Your task to perform on an android device: Search for seafood restaurants on Google Maps Image 0: 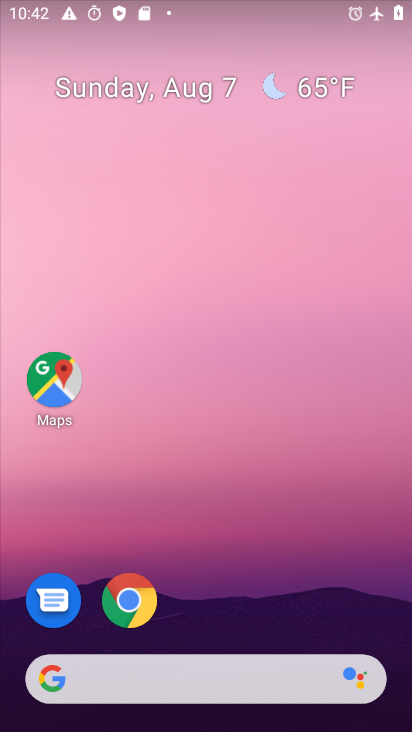
Step 0: drag from (243, 637) to (247, 190)
Your task to perform on an android device: Search for seafood restaurants on Google Maps Image 1: 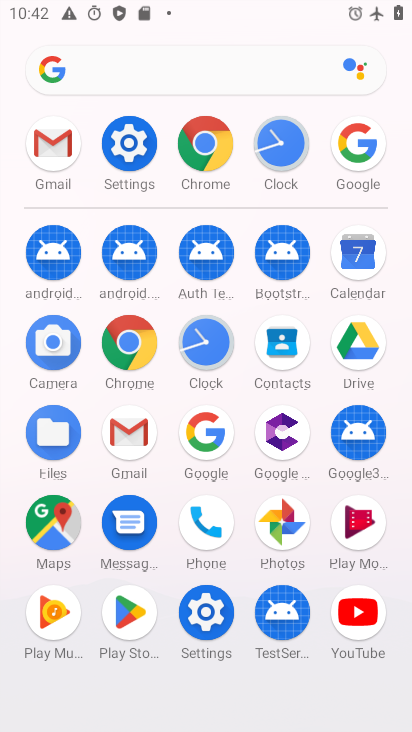
Step 1: click (66, 513)
Your task to perform on an android device: Search for seafood restaurants on Google Maps Image 2: 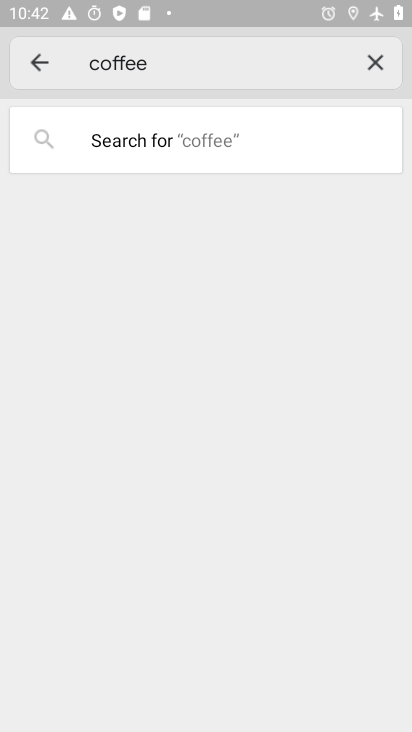
Step 2: click (66, 513)
Your task to perform on an android device: Search for seafood restaurants on Google Maps Image 3: 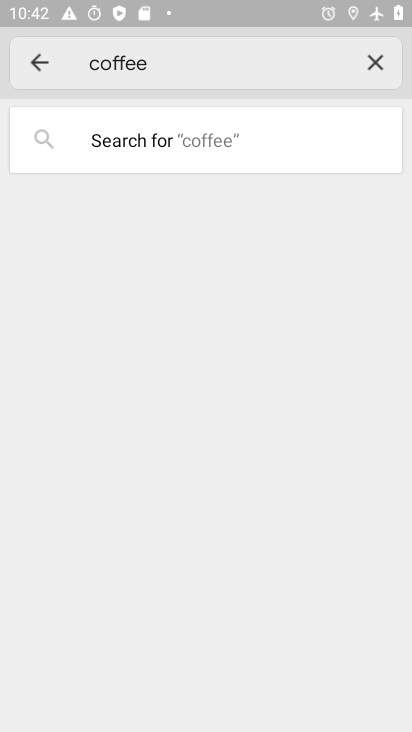
Step 3: click (378, 70)
Your task to perform on an android device: Search for seafood restaurants on Google Maps Image 4: 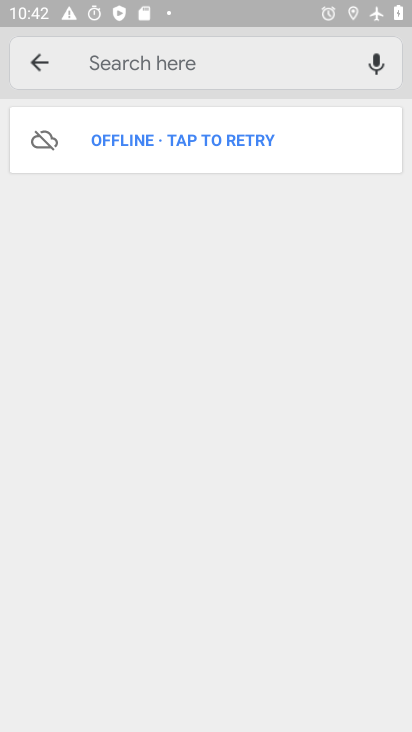
Step 4: click (320, 68)
Your task to perform on an android device: Search for seafood restaurants on Google Maps Image 5: 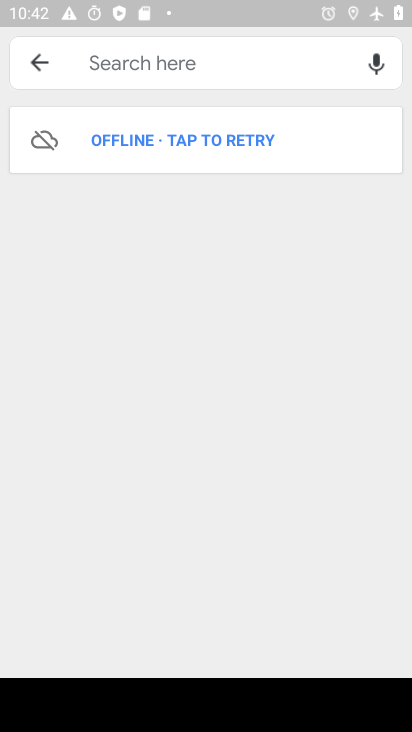
Step 5: type "seafood"
Your task to perform on an android device: Search for seafood restaurants on Google Maps Image 6: 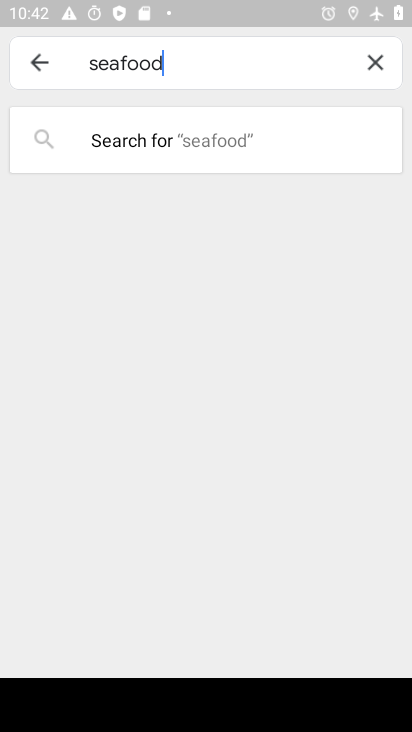
Step 6: task complete